Your task to perform on an android device: turn on airplane mode Image 0: 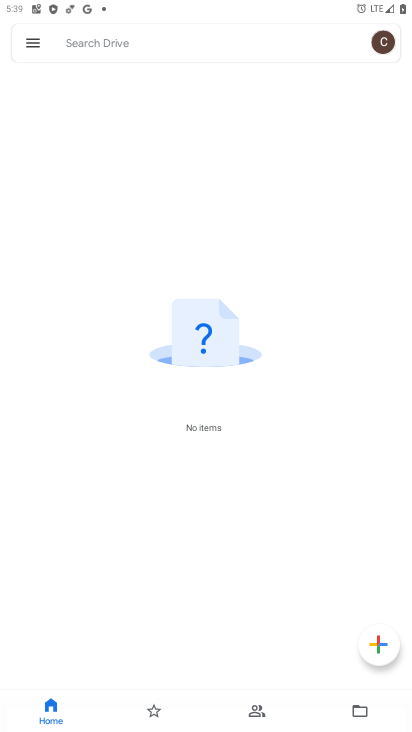
Step 0: press home button
Your task to perform on an android device: turn on airplane mode Image 1: 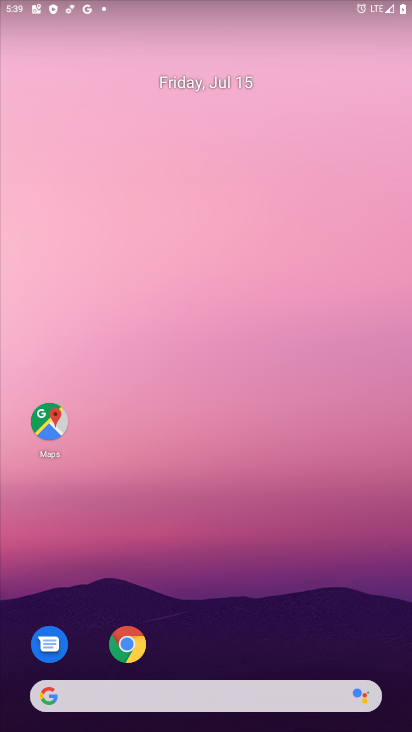
Step 1: drag from (244, 653) to (408, 544)
Your task to perform on an android device: turn on airplane mode Image 2: 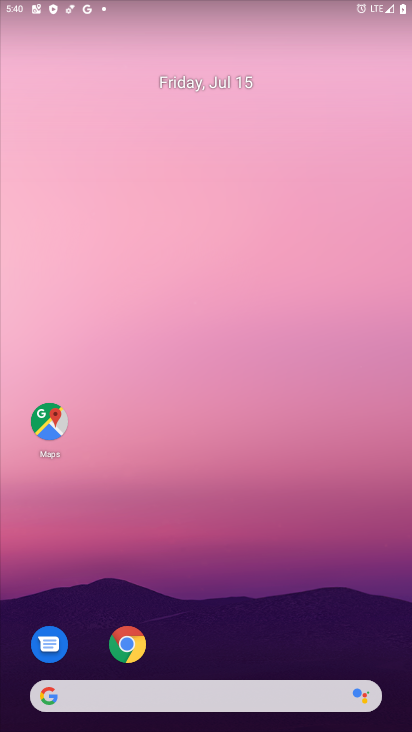
Step 2: drag from (207, 683) to (306, 11)
Your task to perform on an android device: turn on airplane mode Image 3: 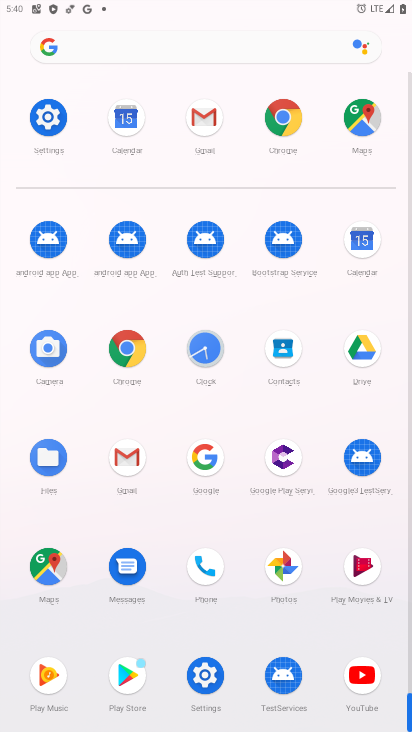
Step 3: drag from (325, 59) to (180, 675)
Your task to perform on an android device: turn on airplane mode Image 4: 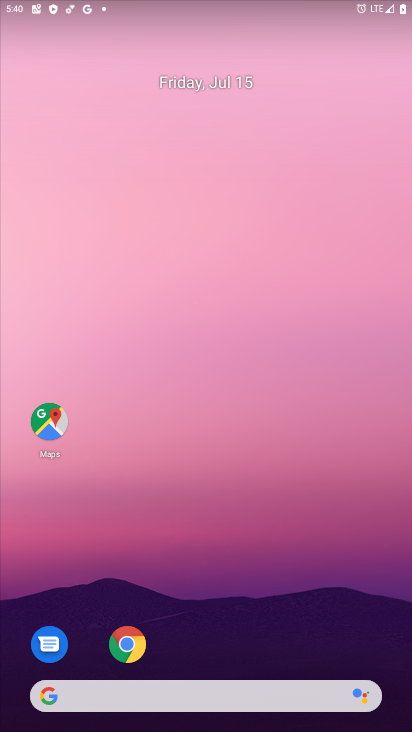
Step 4: drag from (189, 12) to (212, 514)
Your task to perform on an android device: turn on airplane mode Image 5: 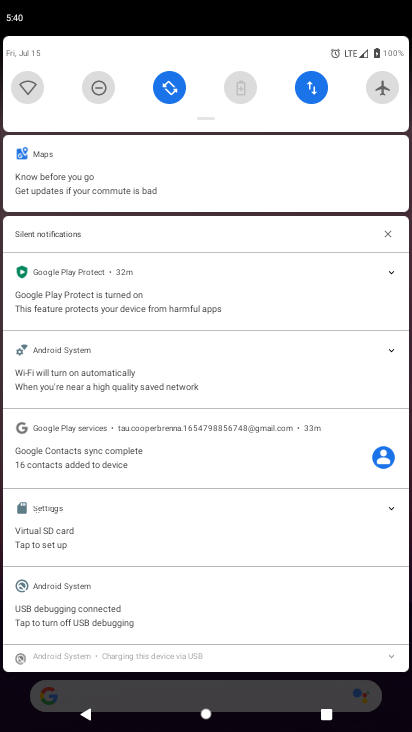
Step 5: drag from (233, 115) to (239, 633)
Your task to perform on an android device: turn on airplane mode Image 6: 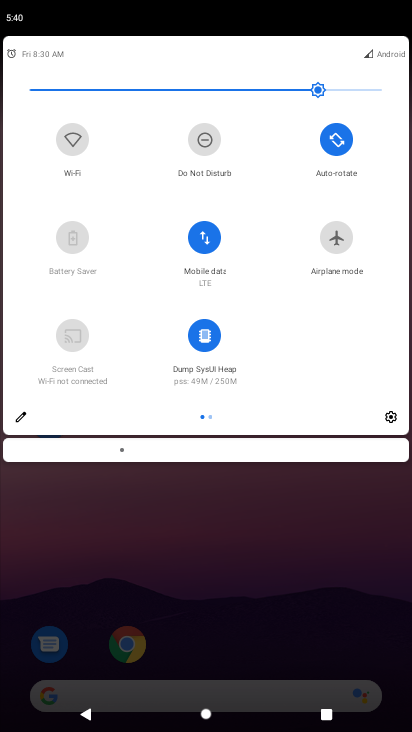
Step 6: click (331, 242)
Your task to perform on an android device: turn on airplane mode Image 7: 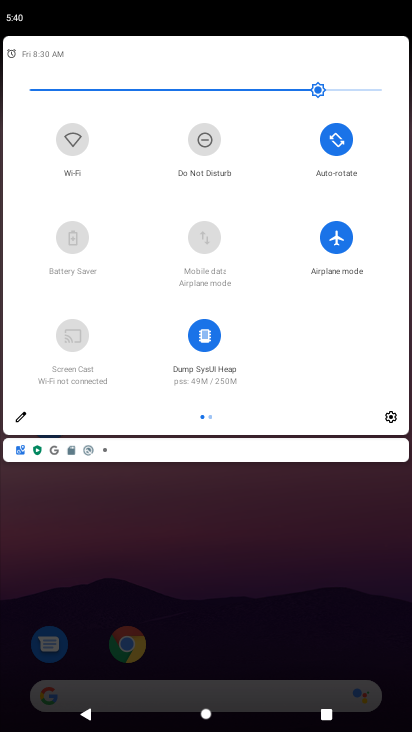
Step 7: task complete